Your task to perform on an android device: toggle wifi Image 0: 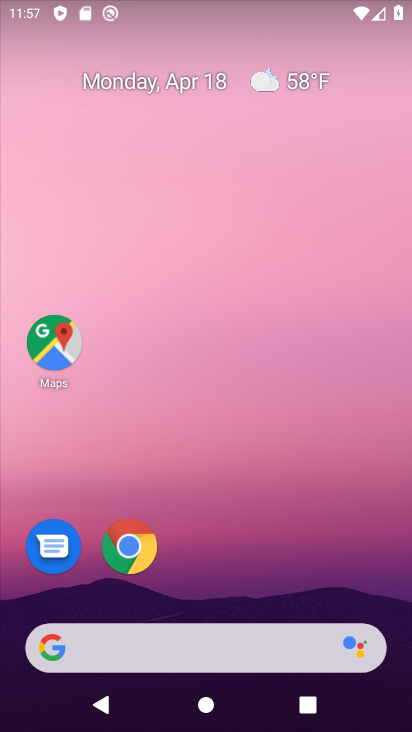
Step 0: drag from (213, 559) to (268, 123)
Your task to perform on an android device: toggle wifi Image 1: 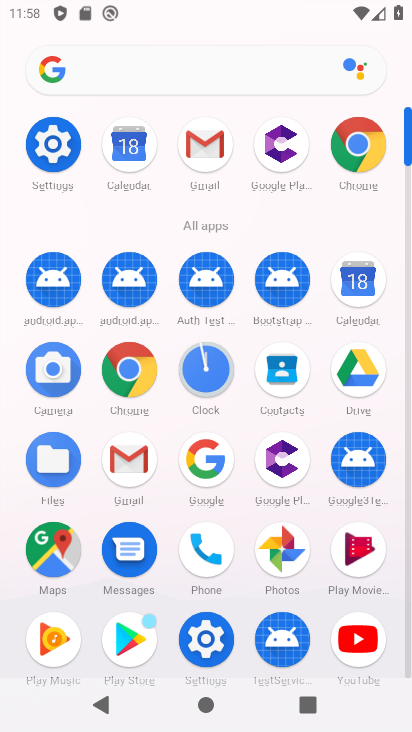
Step 1: click (206, 634)
Your task to perform on an android device: toggle wifi Image 2: 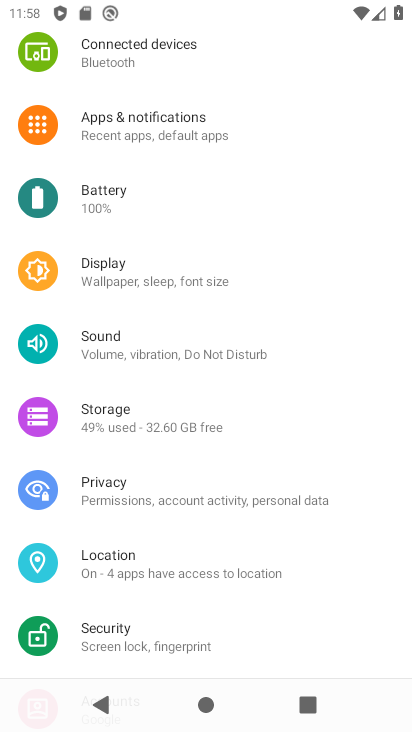
Step 2: drag from (167, 175) to (187, 574)
Your task to perform on an android device: toggle wifi Image 3: 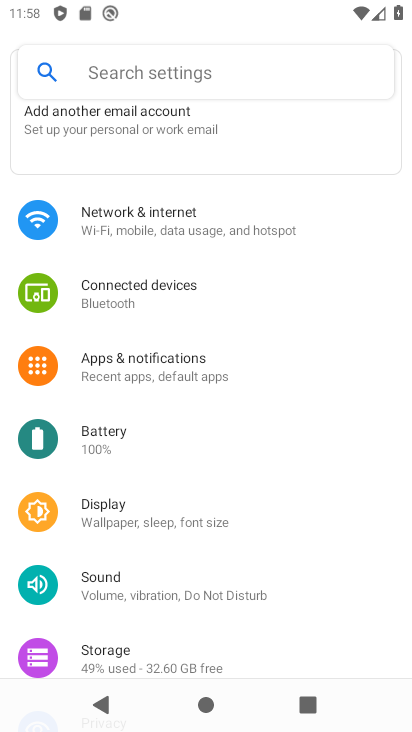
Step 3: click (156, 223)
Your task to perform on an android device: toggle wifi Image 4: 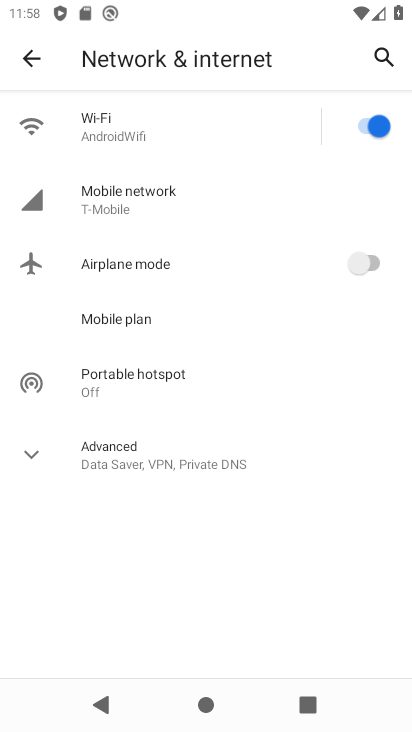
Step 4: click (127, 149)
Your task to perform on an android device: toggle wifi Image 5: 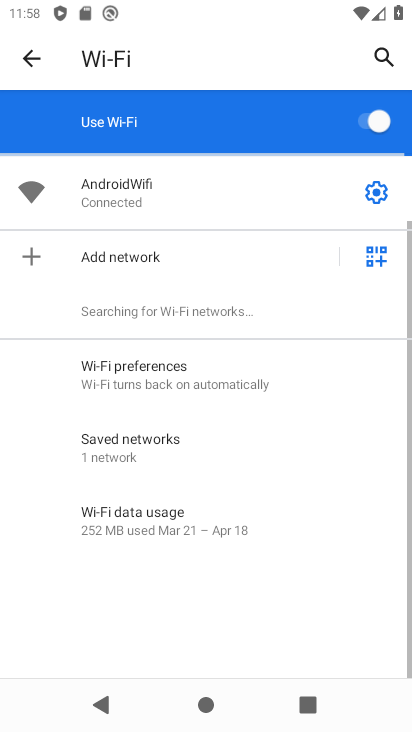
Step 5: task complete